Your task to perform on an android device: Search for sushi restaurants on Maps Image 0: 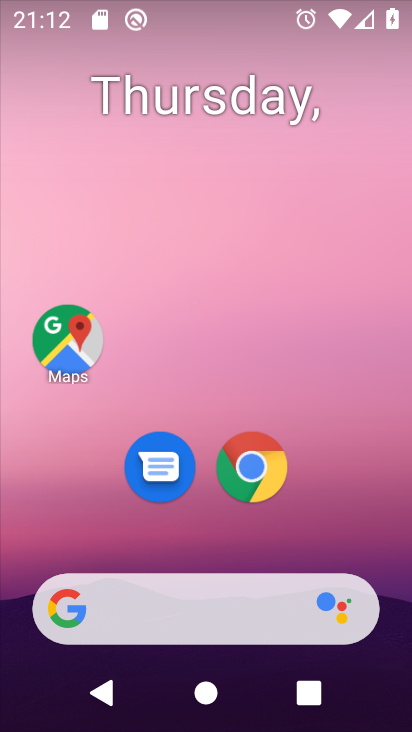
Step 0: click (87, 338)
Your task to perform on an android device: Search for sushi restaurants on Maps Image 1: 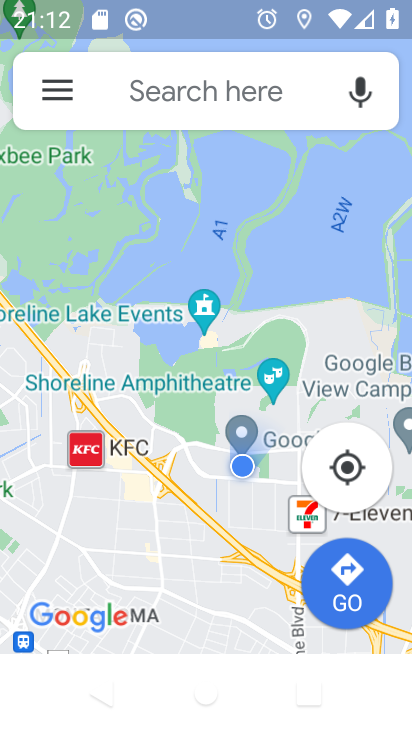
Step 1: click (121, 69)
Your task to perform on an android device: Search for sushi restaurants on Maps Image 2: 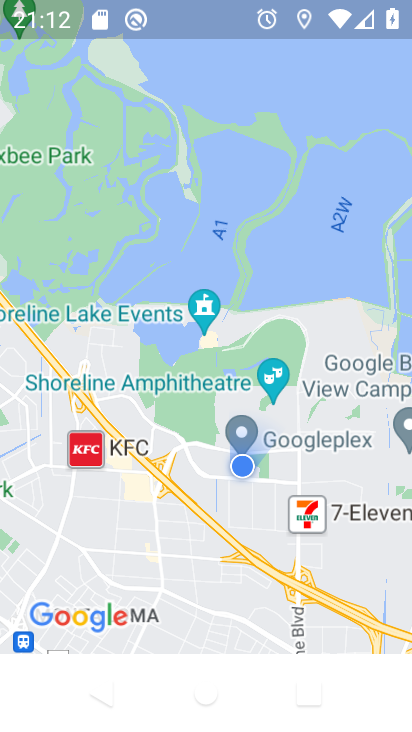
Step 2: task complete